Your task to perform on an android device: turn on javascript in the chrome app Image 0: 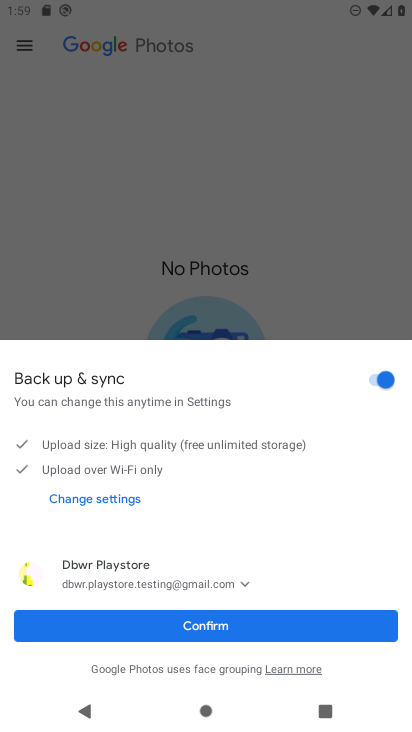
Step 0: press back button
Your task to perform on an android device: turn on javascript in the chrome app Image 1: 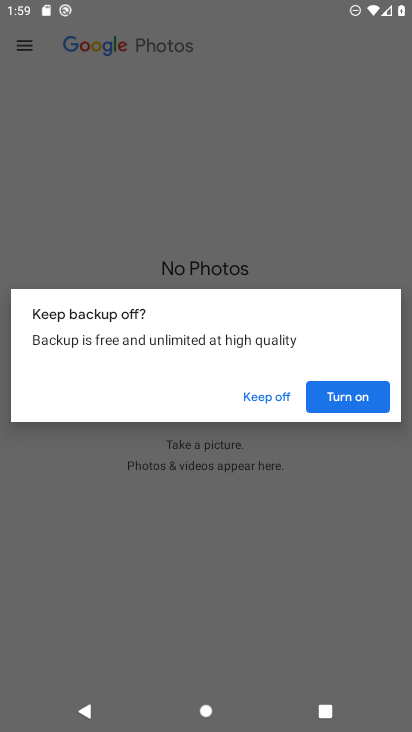
Step 1: click (279, 402)
Your task to perform on an android device: turn on javascript in the chrome app Image 2: 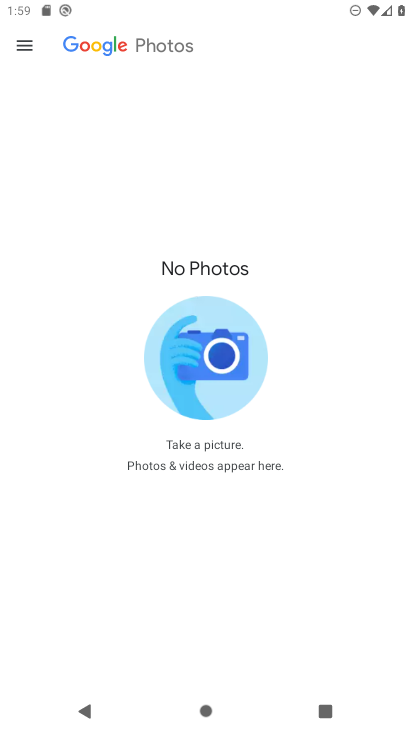
Step 2: press back button
Your task to perform on an android device: turn on javascript in the chrome app Image 3: 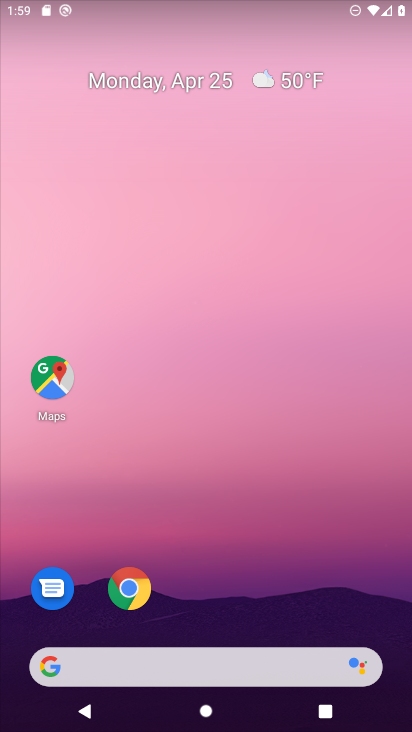
Step 3: click (130, 594)
Your task to perform on an android device: turn on javascript in the chrome app Image 4: 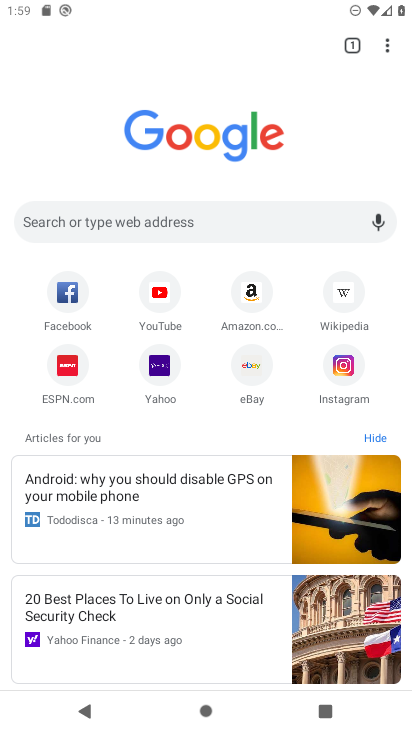
Step 4: drag from (384, 46) to (293, 384)
Your task to perform on an android device: turn on javascript in the chrome app Image 5: 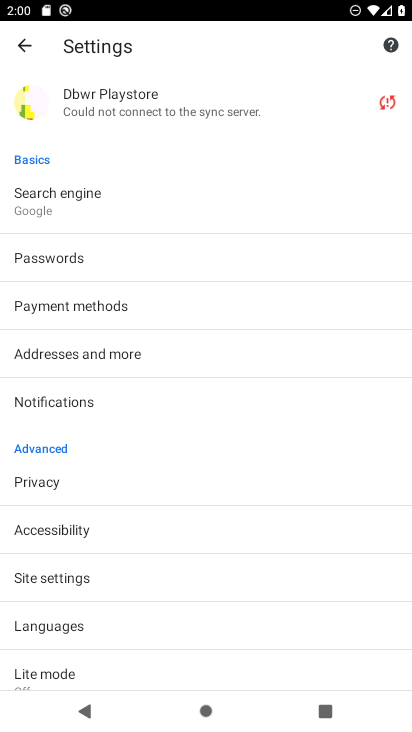
Step 5: drag from (106, 634) to (139, 519)
Your task to perform on an android device: turn on javascript in the chrome app Image 6: 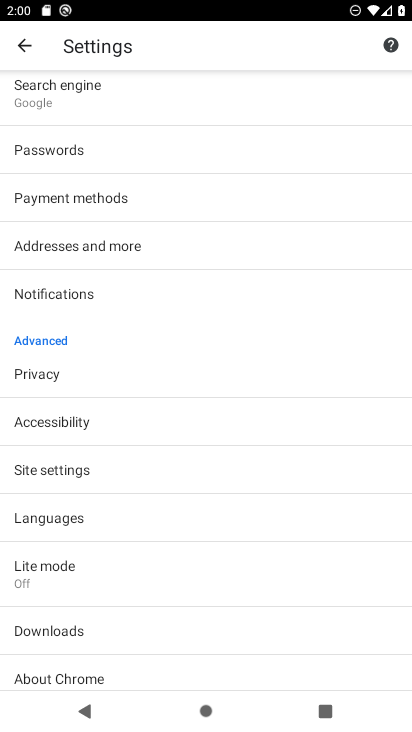
Step 6: click (105, 472)
Your task to perform on an android device: turn on javascript in the chrome app Image 7: 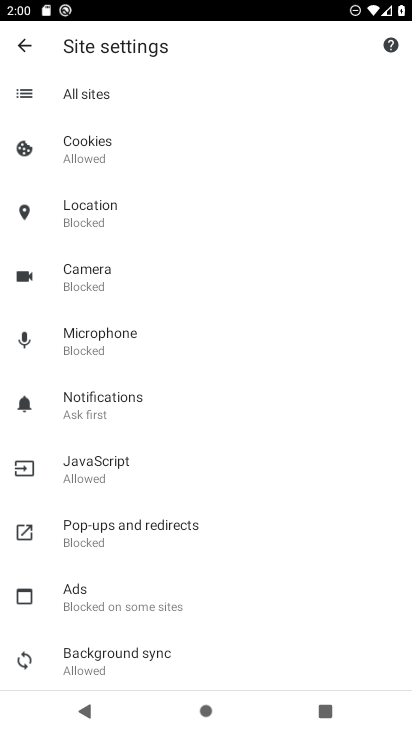
Step 7: click (163, 466)
Your task to perform on an android device: turn on javascript in the chrome app Image 8: 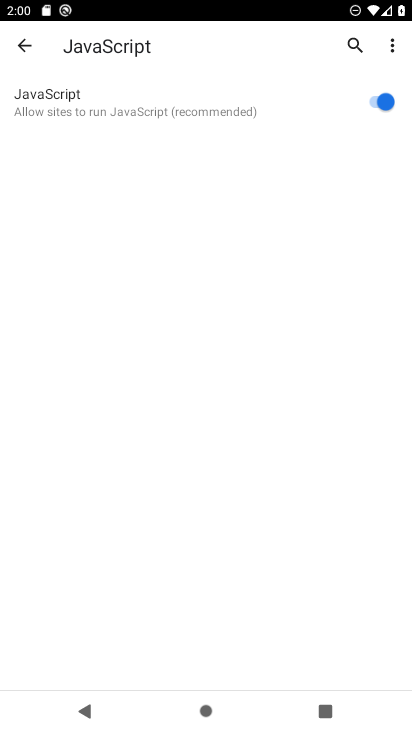
Step 8: task complete